Your task to perform on an android device: Search for seafood restaurants on Google Maps Image 0: 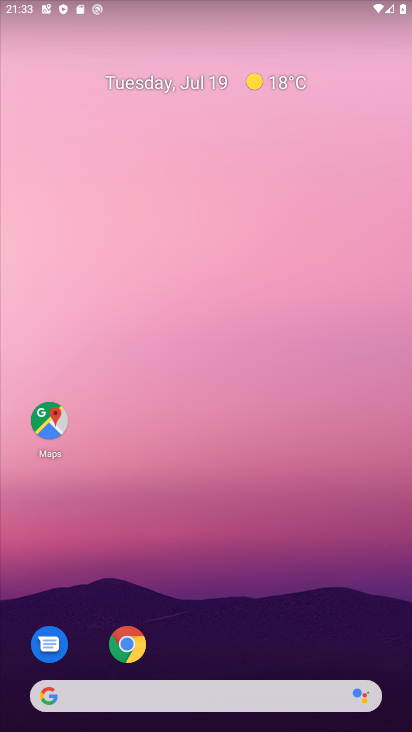
Step 0: drag from (237, 724) to (237, 227)
Your task to perform on an android device: Search for seafood restaurants on Google Maps Image 1: 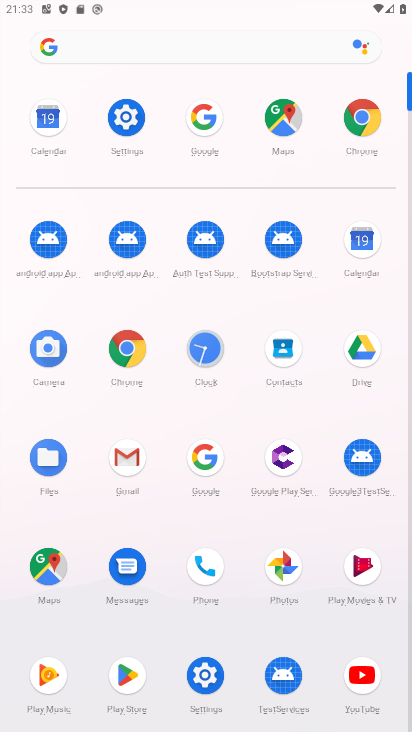
Step 1: click (44, 562)
Your task to perform on an android device: Search for seafood restaurants on Google Maps Image 2: 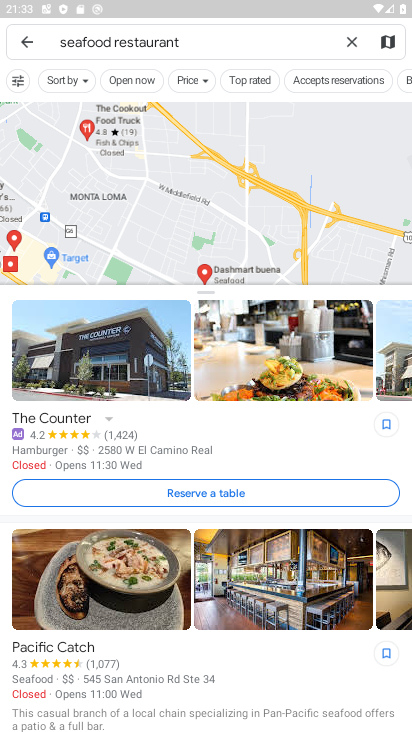
Step 2: task complete